Your task to perform on an android device: Open accessibility settings Image 0: 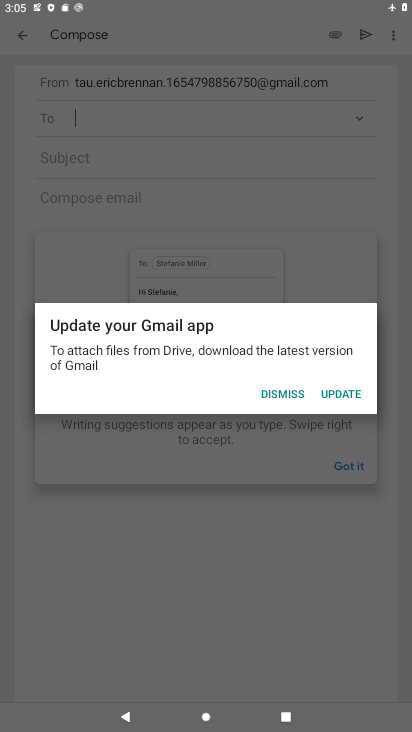
Step 0: press home button
Your task to perform on an android device: Open accessibility settings Image 1: 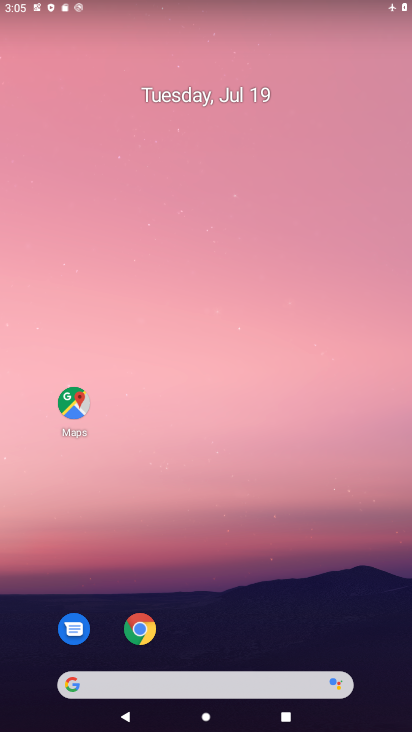
Step 1: drag from (188, 693) to (194, 64)
Your task to perform on an android device: Open accessibility settings Image 2: 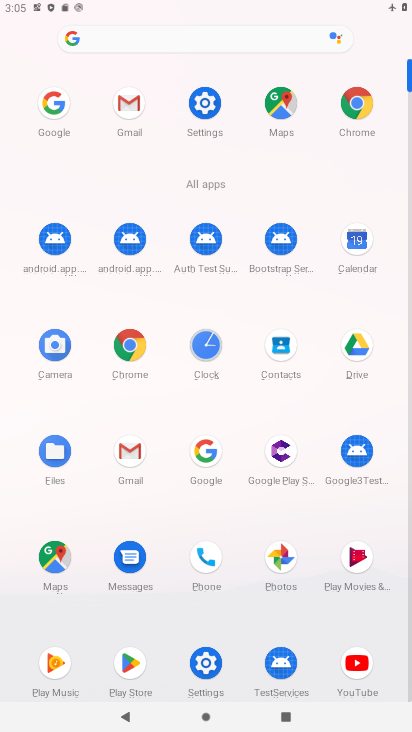
Step 2: click (201, 668)
Your task to perform on an android device: Open accessibility settings Image 3: 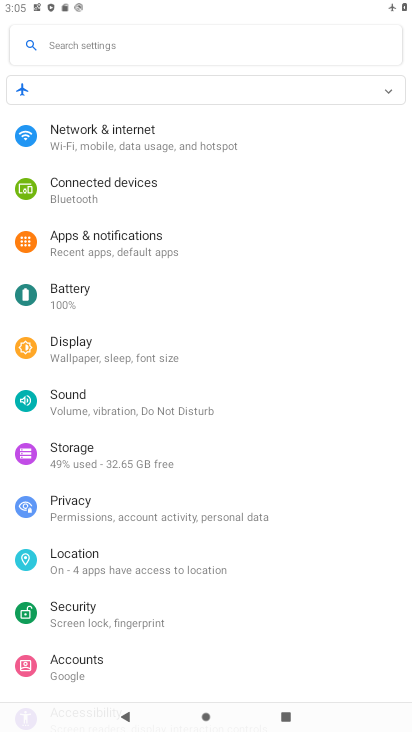
Step 3: drag from (132, 596) to (60, 181)
Your task to perform on an android device: Open accessibility settings Image 4: 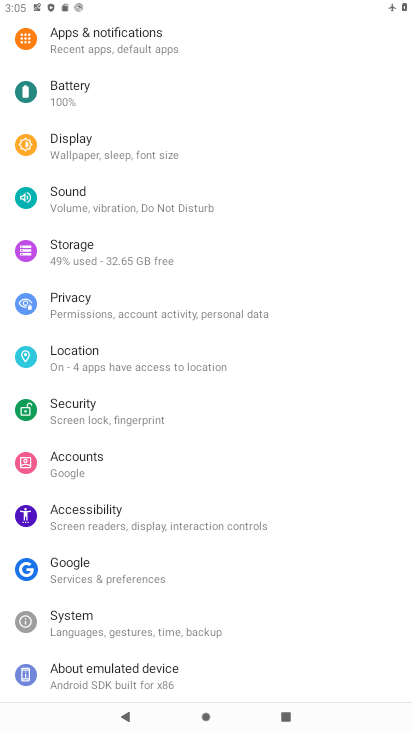
Step 4: click (84, 515)
Your task to perform on an android device: Open accessibility settings Image 5: 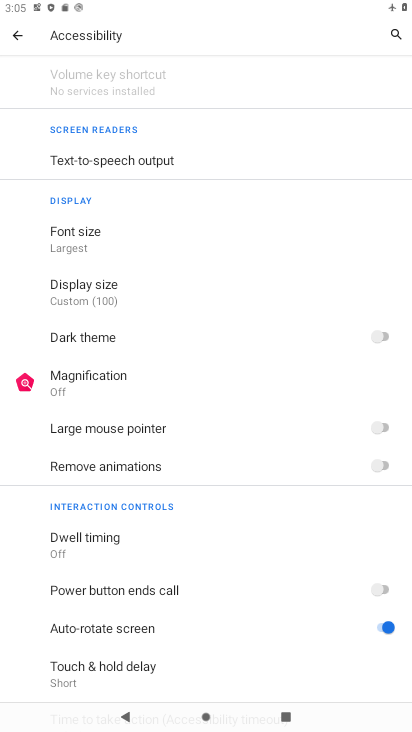
Step 5: task complete